Your task to perform on an android device: find snoozed emails in the gmail app Image 0: 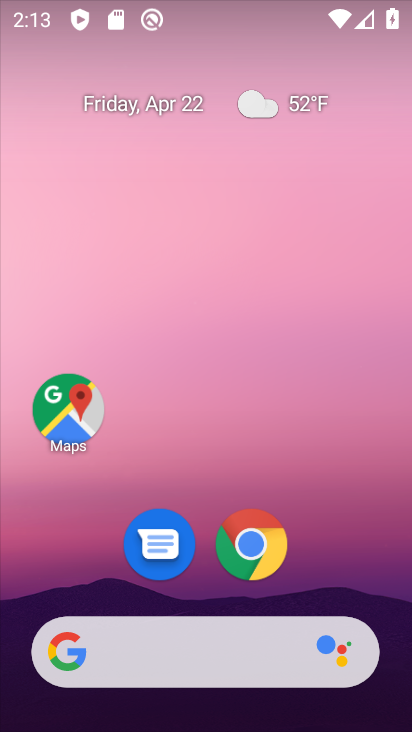
Step 0: drag from (181, 568) to (197, 72)
Your task to perform on an android device: find snoozed emails in the gmail app Image 1: 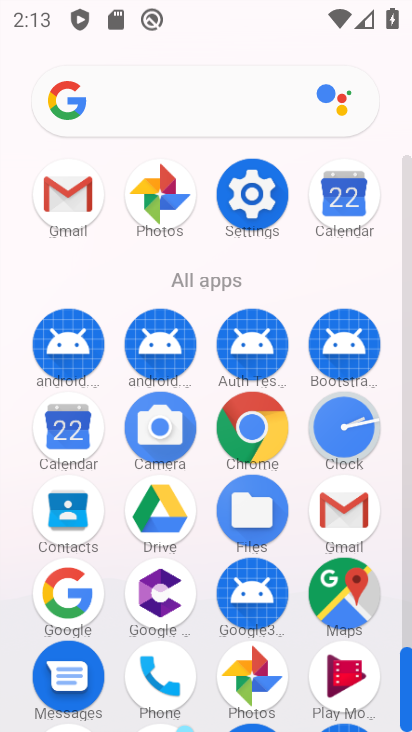
Step 1: click (336, 502)
Your task to perform on an android device: find snoozed emails in the gmail app Image 2: 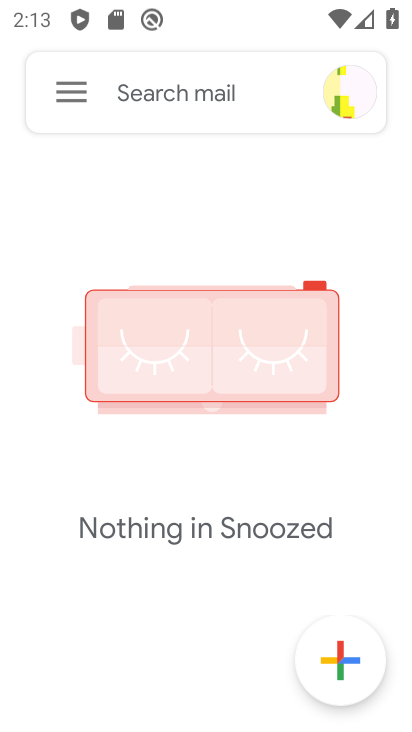
Step 2: task complete